Your task to perform on an android device: Empty the shopping cart on bestbuy. Image 0: 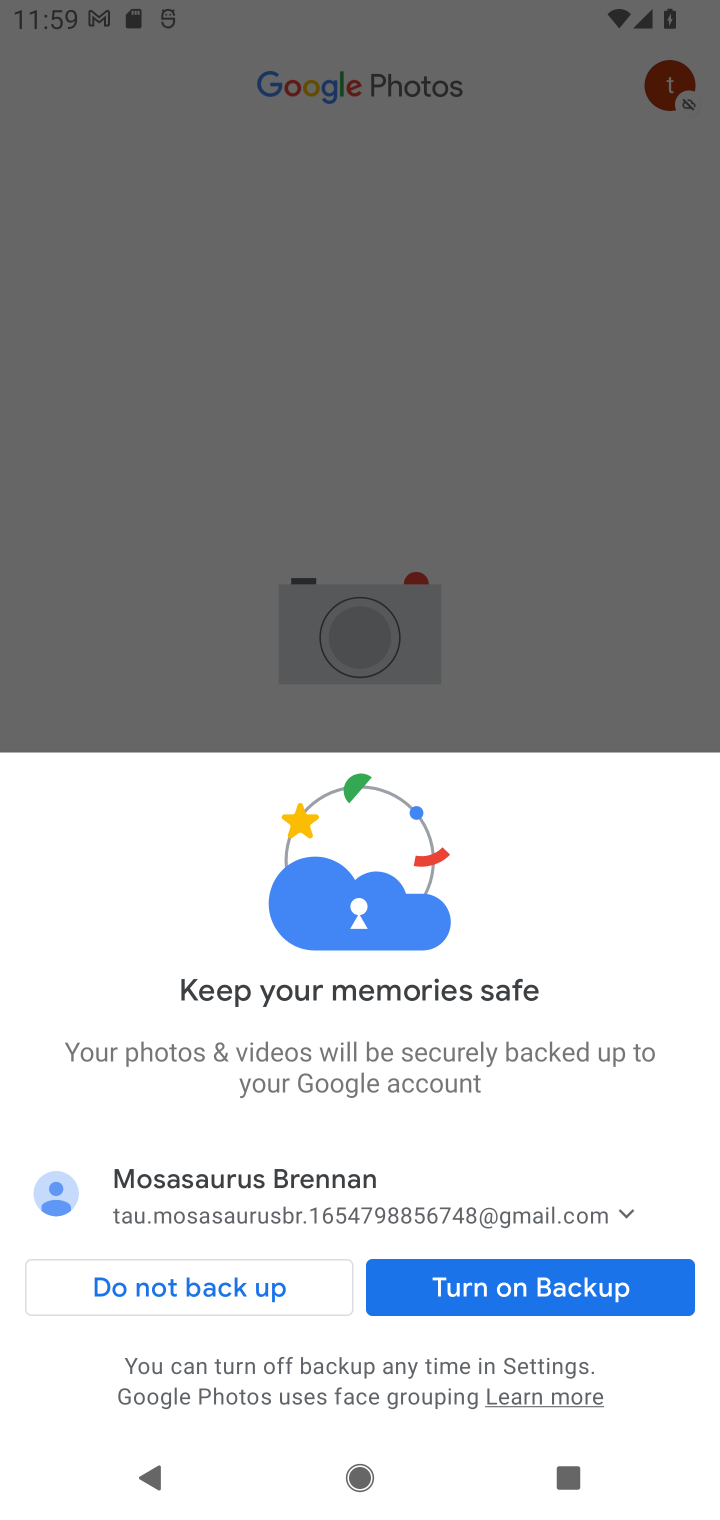
Step 0: press home button
Your task to perform on an android device: Empty the shopping cart on bestbuy. Image 1: 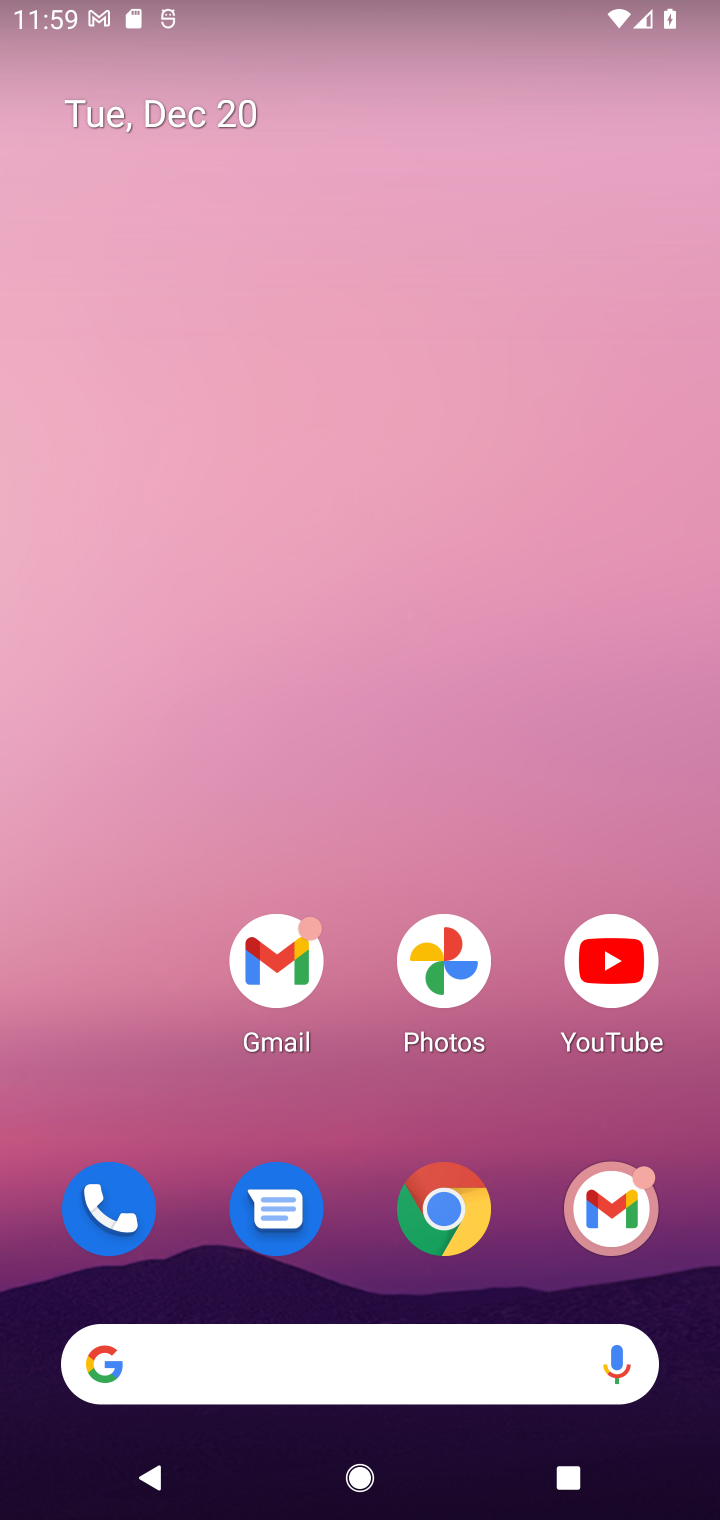
Step 1: click (453, 1210)
Your task to perform on an android device: Empty the shopping cart on bestbuy. Image 2: 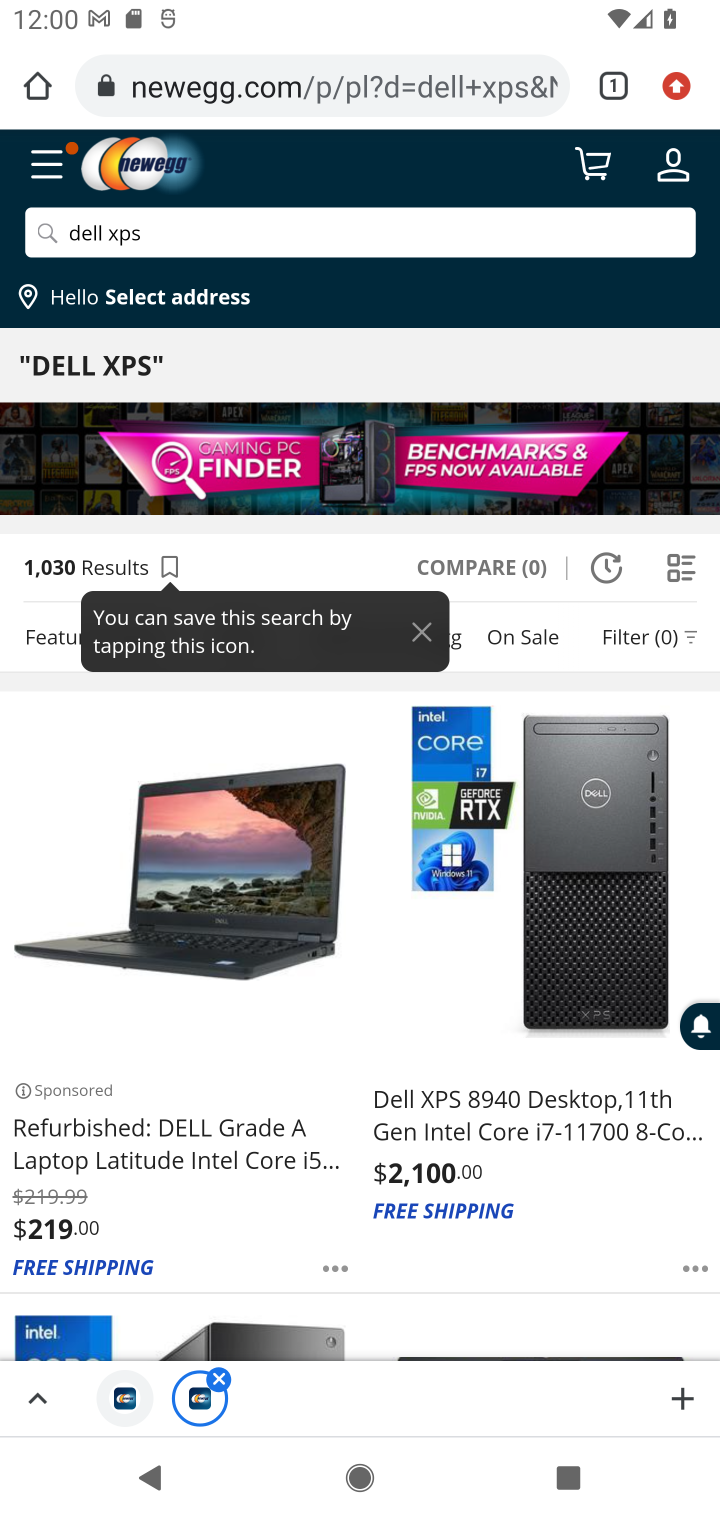
Step 2: click (225, 87)
Your task to perform on an android device: Empty the shopping cart on bestbuy. Image 3: 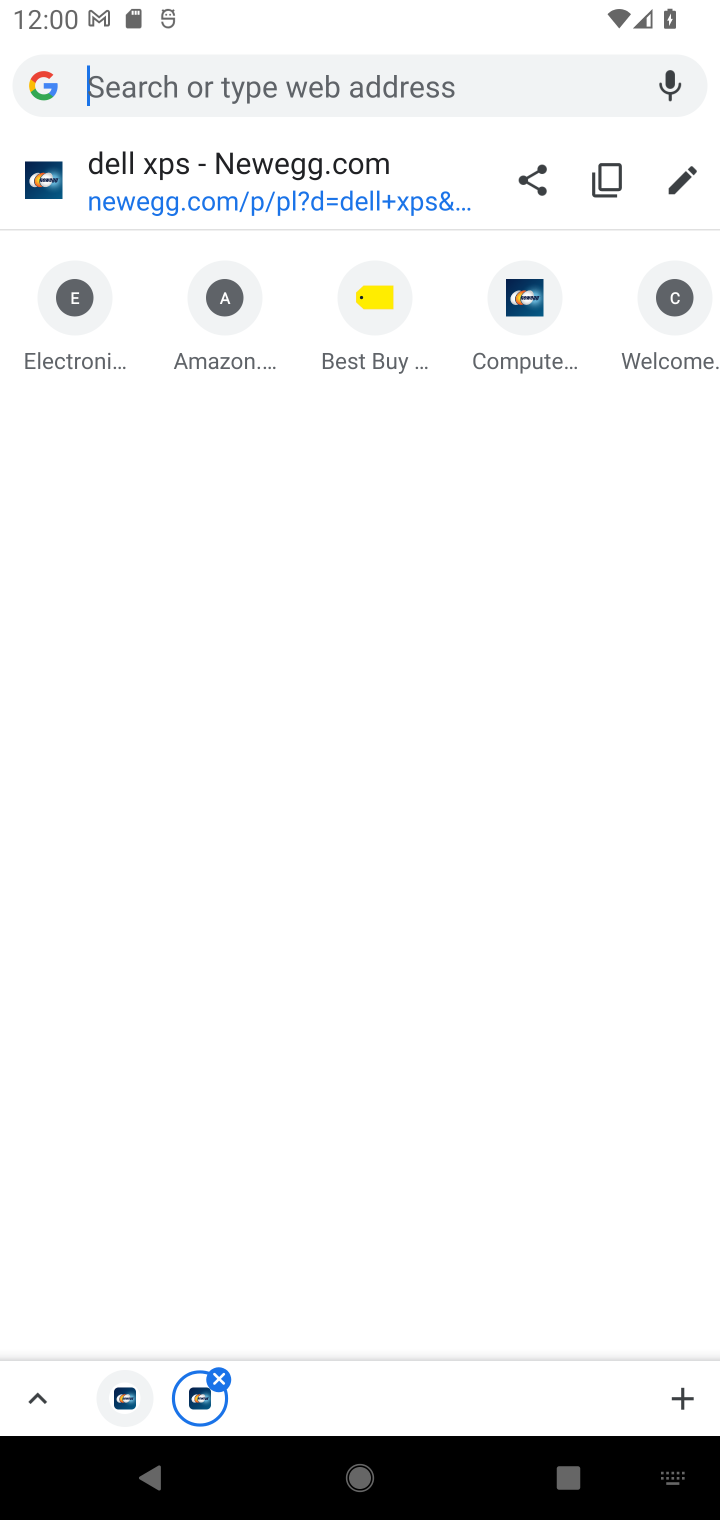
Step 3: click (354, 335)
Your task to perform on an android device: Empty the shopping cart on bestbuy. Image 4: 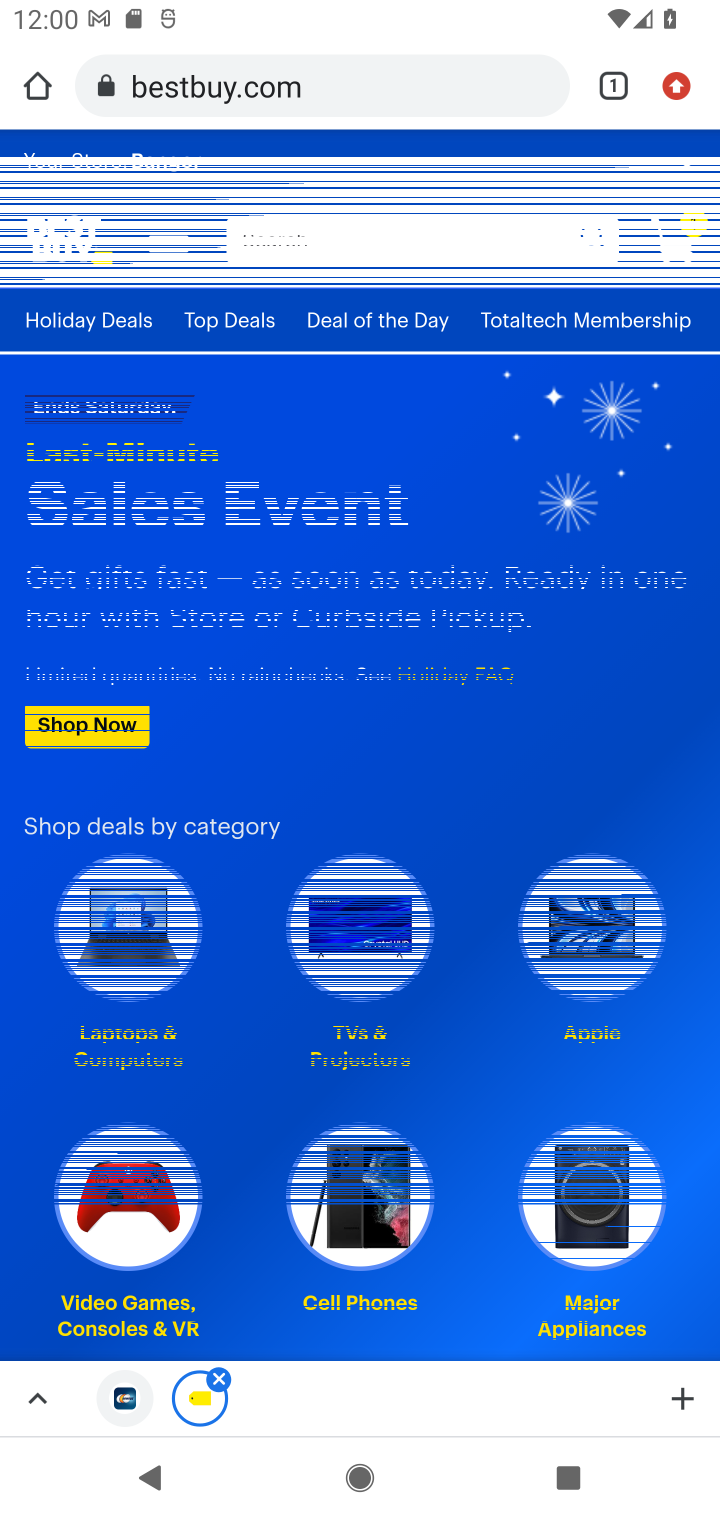
Step 4: click (678, 243)
Your task to perform on an android device: Empty the shopping cart on bestbuy. Image 5: 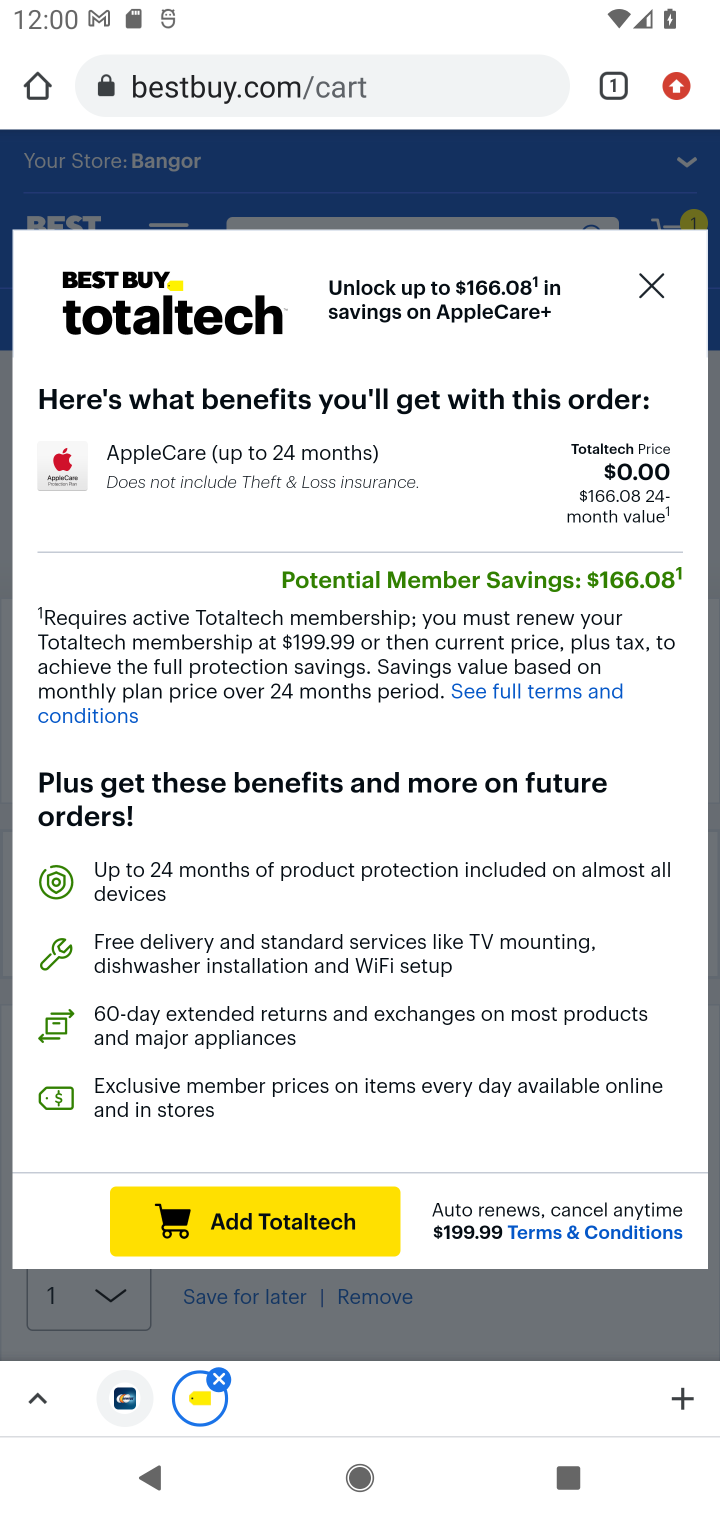
Step 5: click (652, 294)
Your task to perform on an android device: Empty the shopping cart on bestbuy. Image 6: 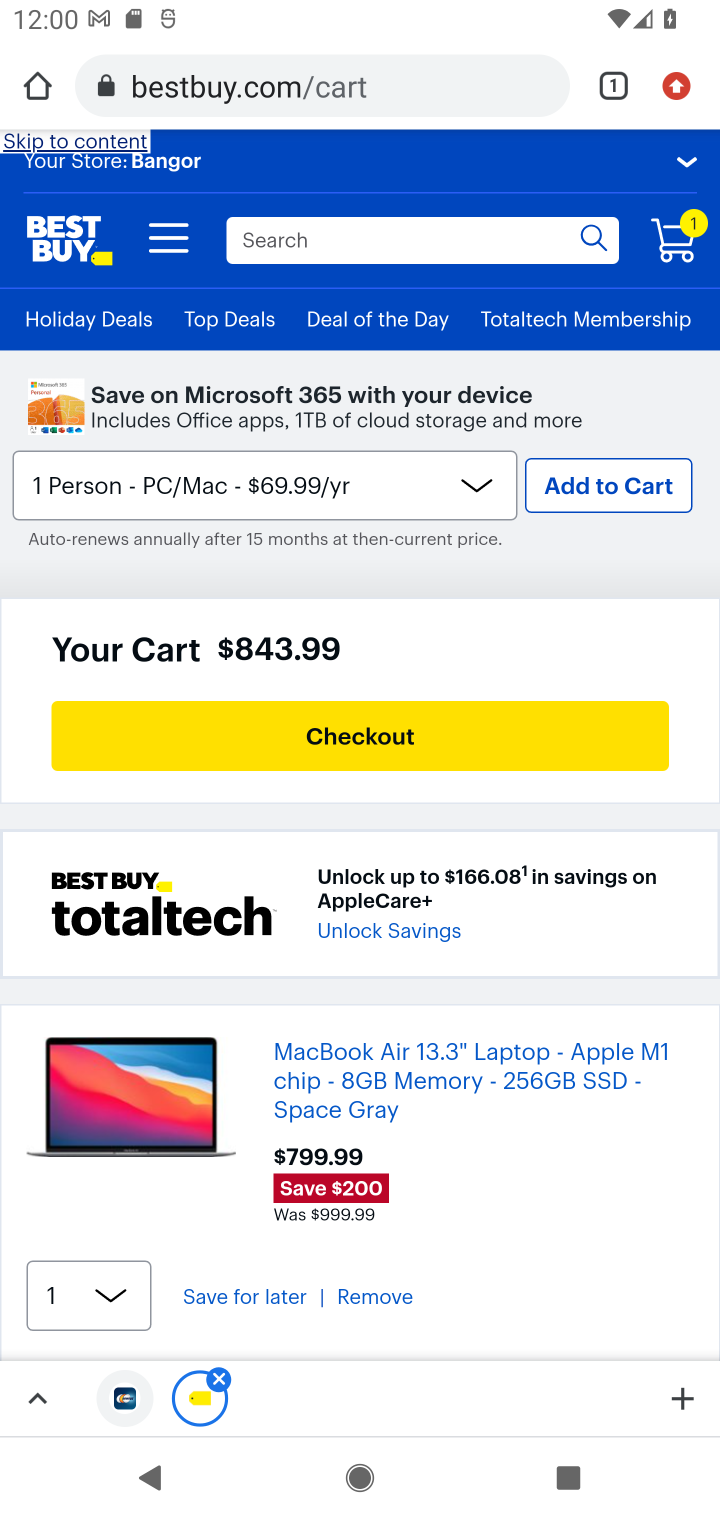
Step 6: drag from (281, 785) to (310, 543)
Your task to perform on an android device: Empty the shopping cart on bestbuy. Image 7: 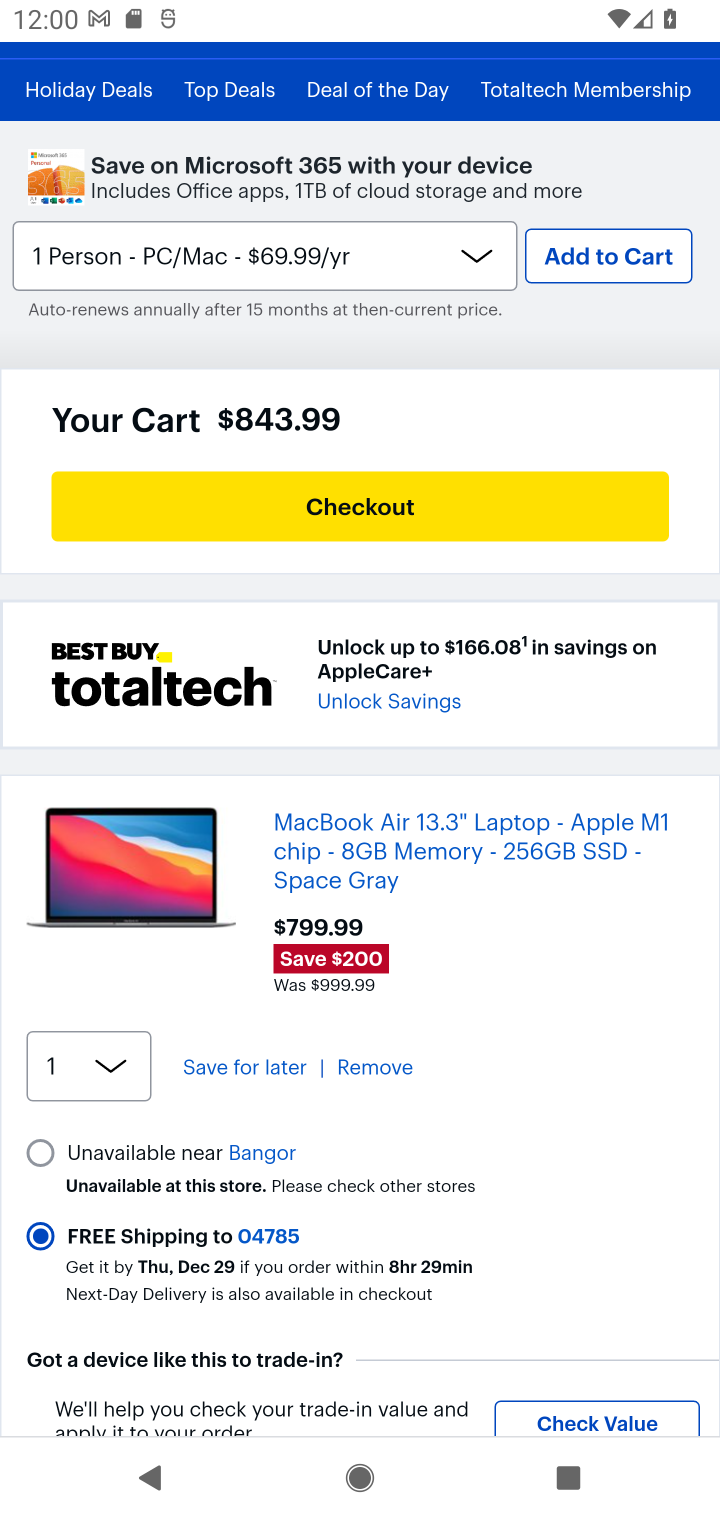
Step 7: click (368, 1072)
Your task to perform on an android device: Empty the shopping cart on bestbuy. Image 8: 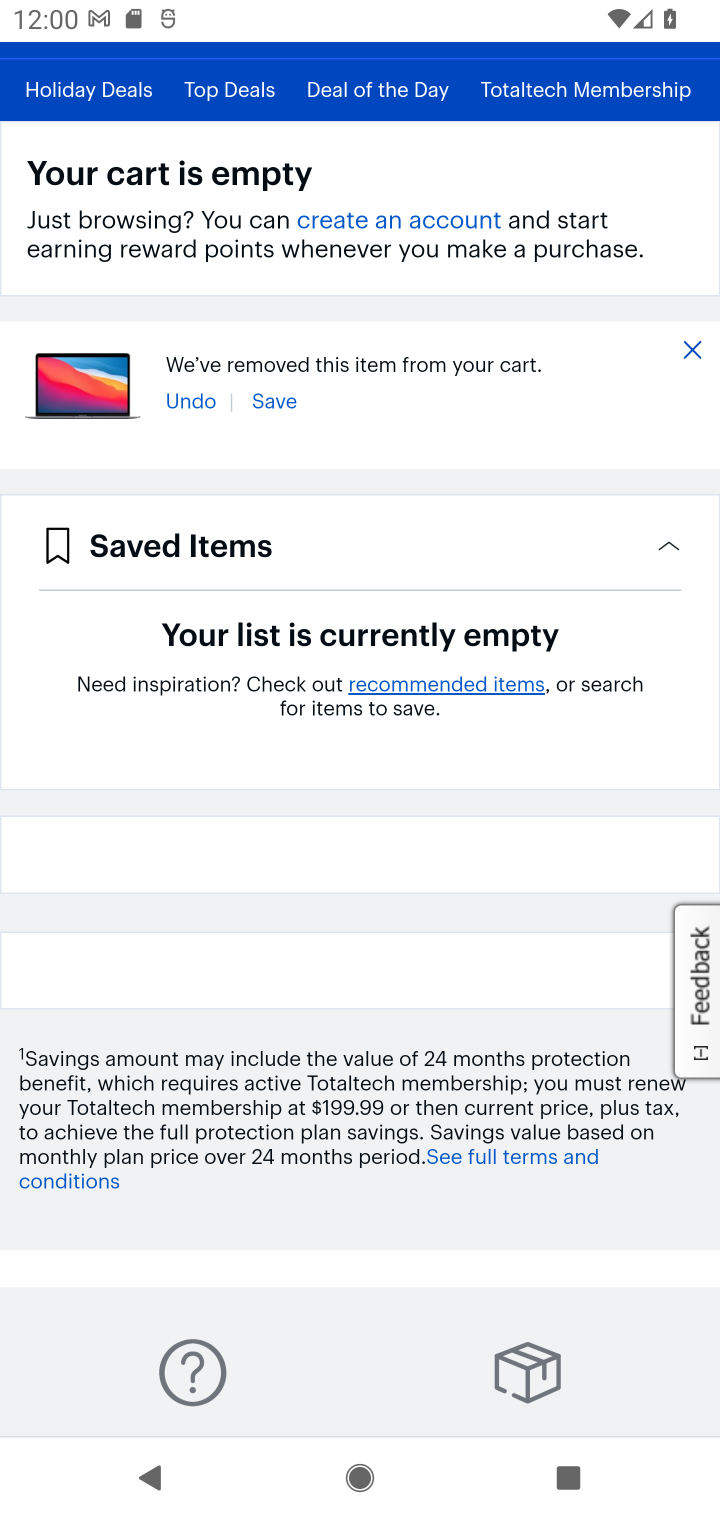
Step 8: task complete